Your task to perform on an android device: choose inbox layout in the gmail app Image 0: 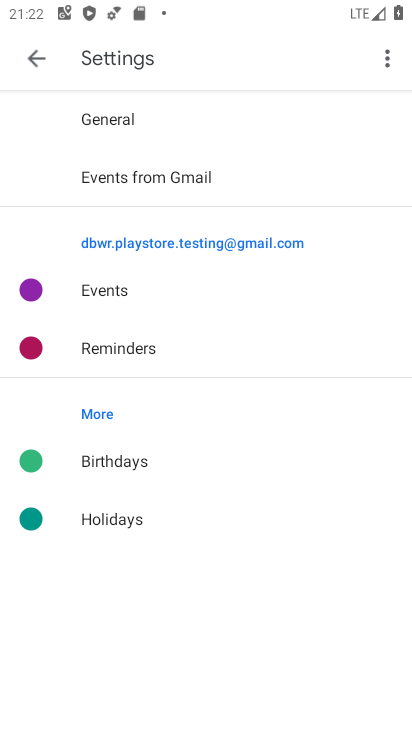
Step 0: press back button
Your task to perform on an android device: choose inbox layout in the gmail app Image 1: 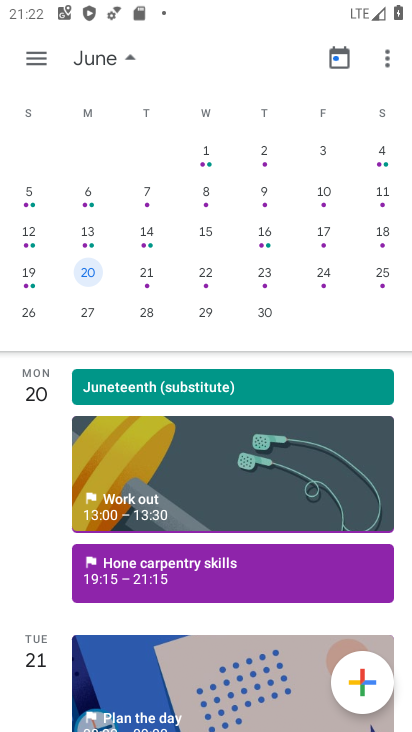
Step 1: press home button
Your task to perform on an android device: choose inbox layout in the gmail app Image 2: 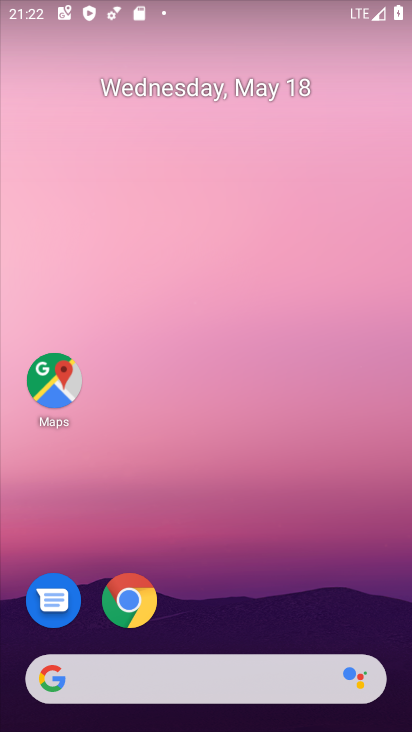
Step 2: drag from (214, 607) to (289, 78)
Your task to perform on an android device: choose inbox layout in the gmail app Image 3: 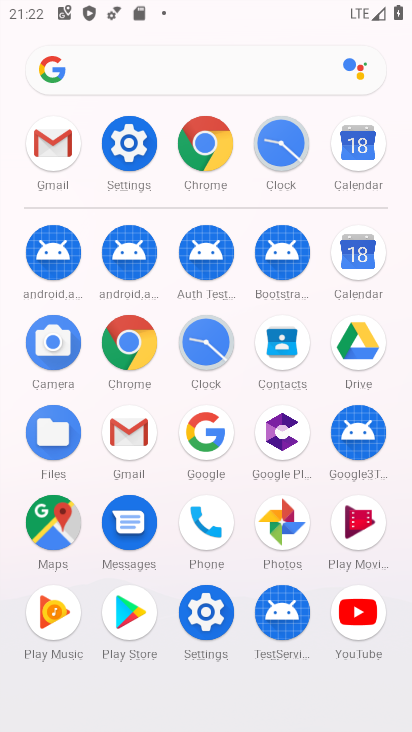
Step 3: click (136, 421)
Your task to perform on an android device: choose inbox layout in the gmail app Image 4: 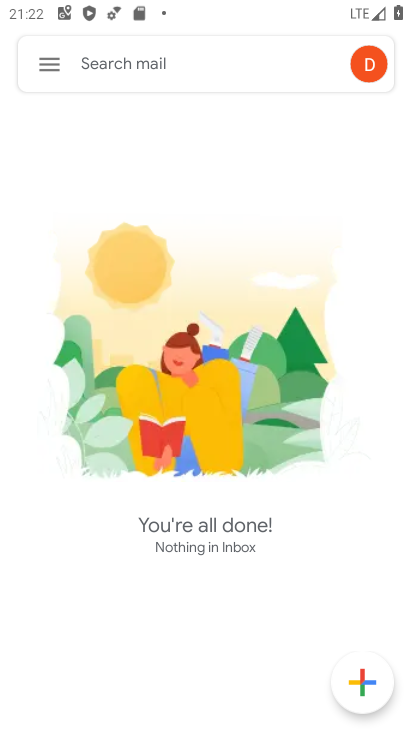
Step 4: click (45, 72)
Your task to perform on an android device: choose inbox layout in the gmail app Image 5: 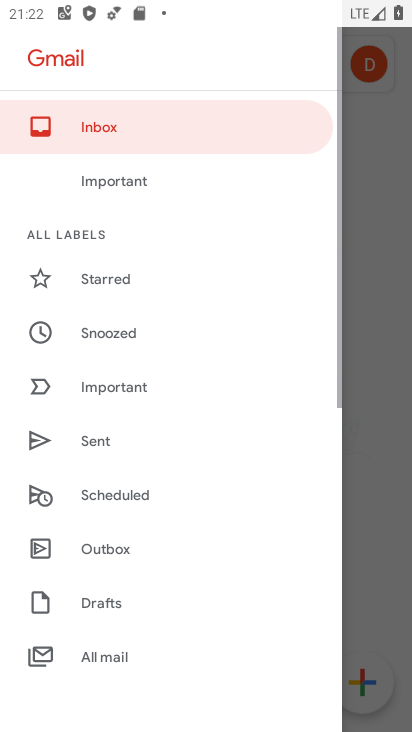
Step 5: drag from (90, 645) to (178, 115)
Your task to perform on an android device: choose inbox layout in the gmail app Image 6: 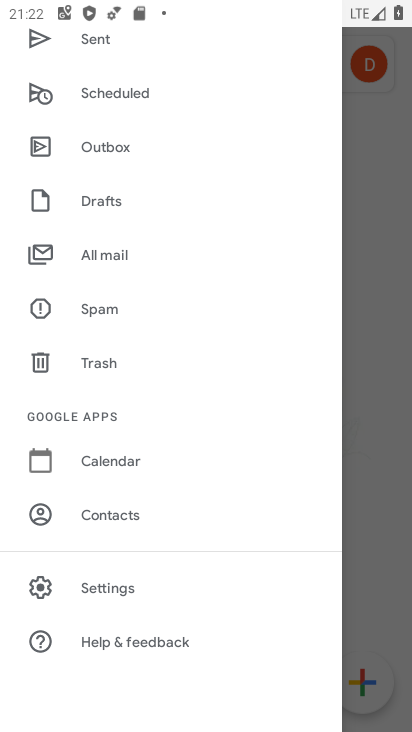
Step 6: click (118, 580)
Your task to perform on an android device: choose inbox layout in the gmail app Image 7: 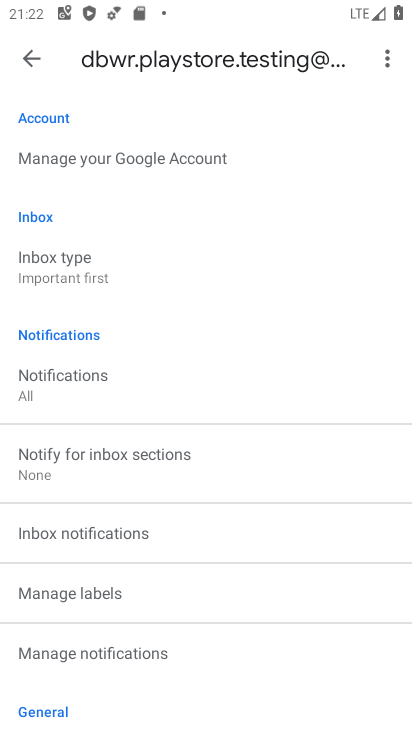
Step 7: click (89, 260)
Your task to perform on an android device: choose inbox layout in the gmail app Image 8: 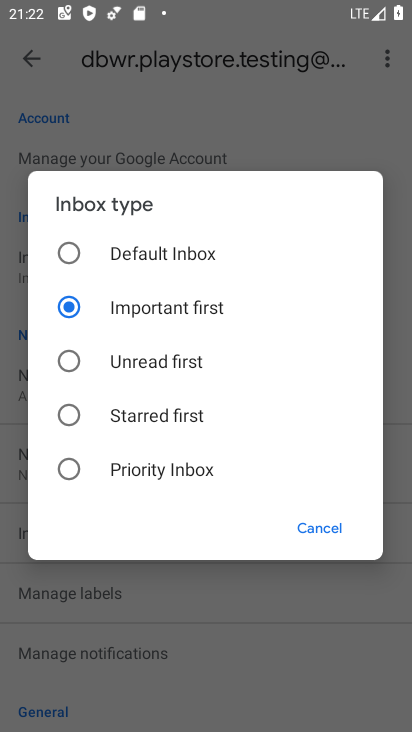
Step 8: click (58, 241)
Your task to perform on an android device: choose inbox layout in the gmail app Image 9: 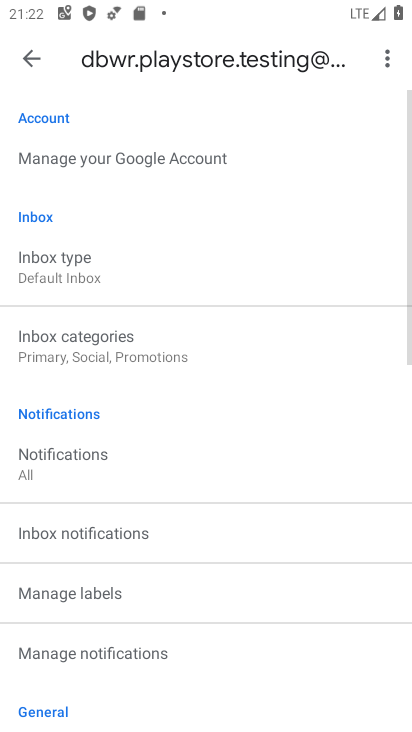
Step 9: task complete